Your task to perform on an android device: What's the latest technology news? Image 0: 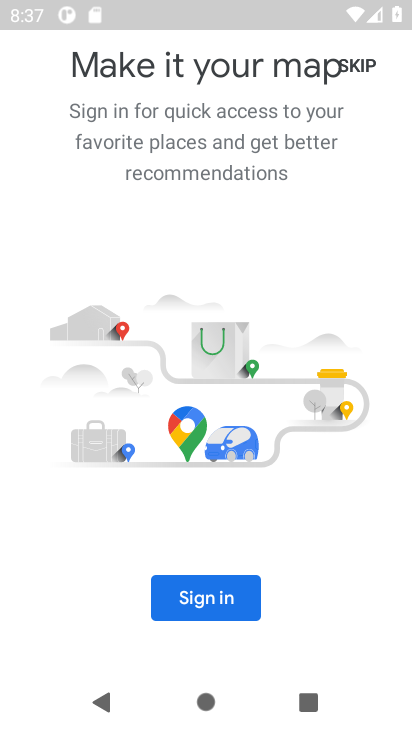
Step 0: press home button
Your task to perform on an android device: What's the latest technology news? Image 1: 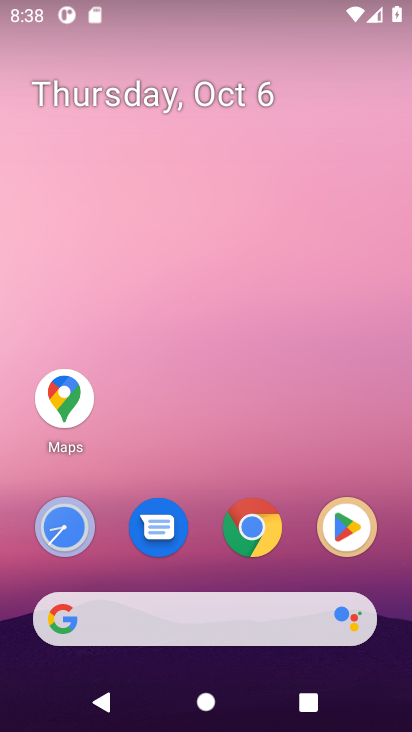
Step 1: click (264, 522)
Your task to perform on an android device: What's the latest technology news? Image 2: 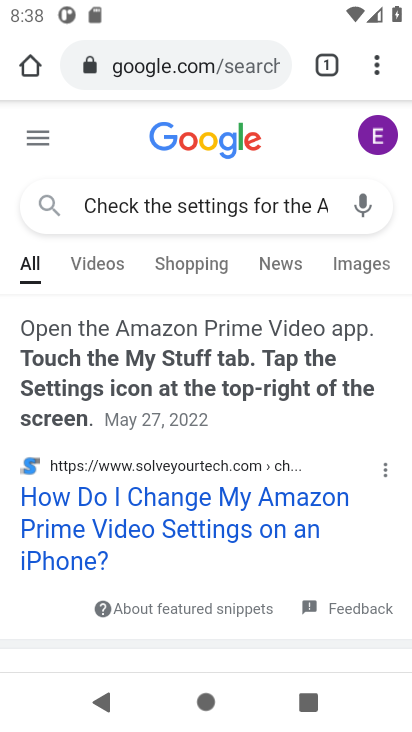
Step 2: click (181, 55)
Your task to perform on an android device: What's the latest technology news? Image 3: 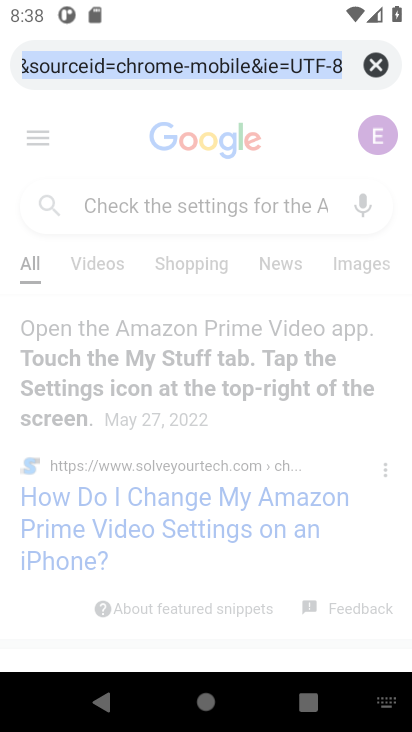
Step 3: type "What's the latest technology news?"
Your task to perform on an android device: What's the latest technology news? Image 4: 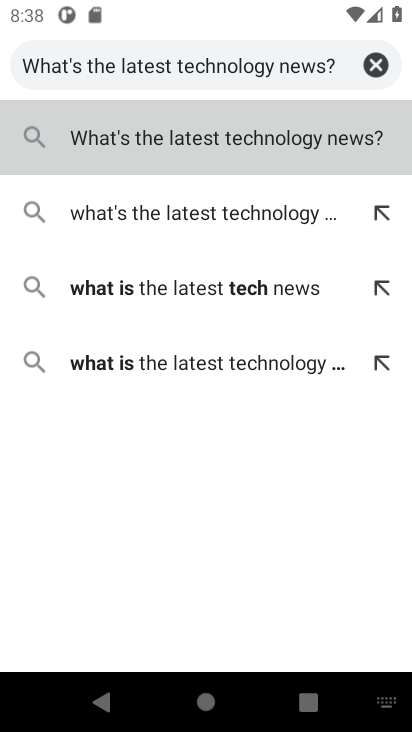
Step 4: click (213, 133)
Your task to perform on an android device: What's the latest technology news? Image 5: 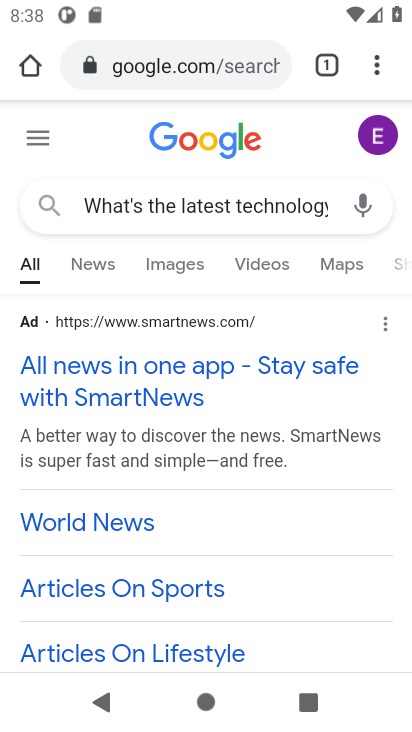
Step 5: click (148, 486)
Your task to perform on an android device: What's the latest technology news? Image 6: 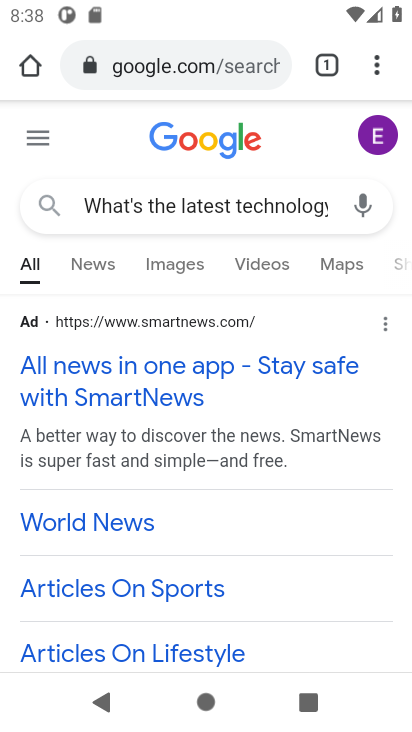
Step 6: click (153, 383)
Your task to perform on an android device: What's the latest technology news? Image 7: 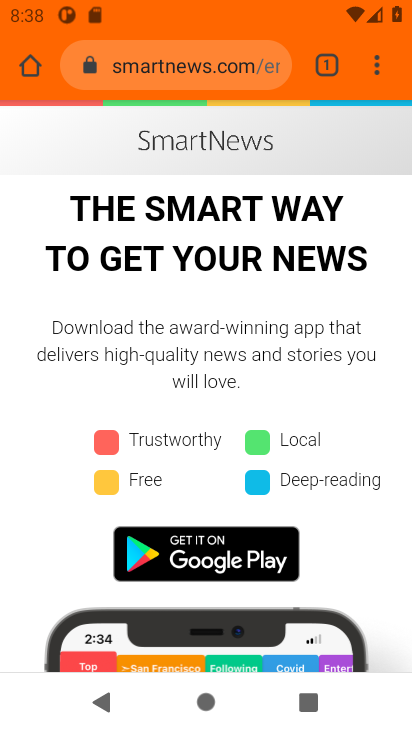
Step 7: task complete